Your task to perform on an android device: Go to Amazon Image 0: 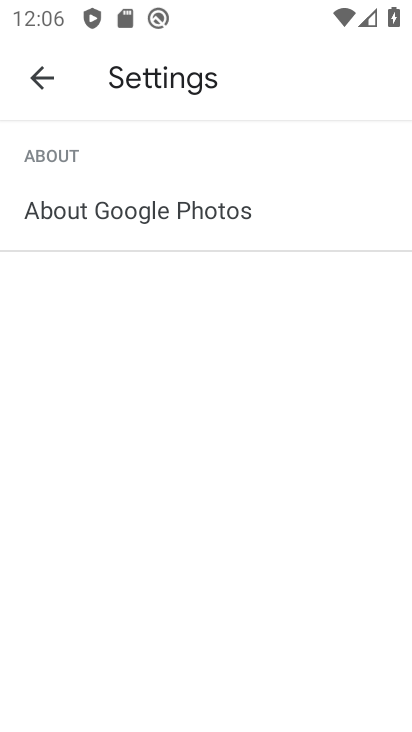
Step 0: press home button
Your task to perform on an android device: Go to Amazon Image 1: 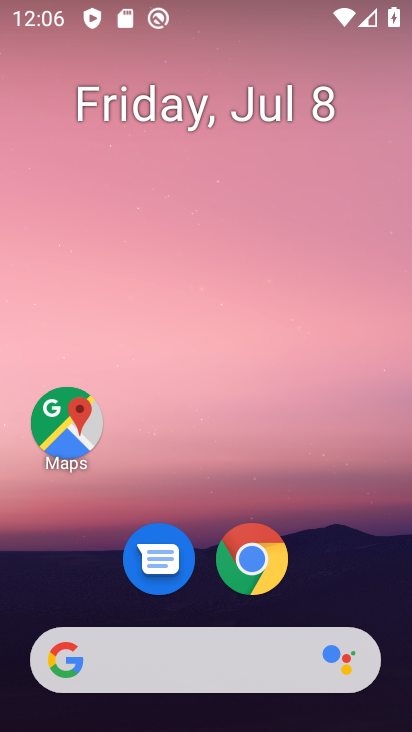
Step 1: click (243, 557)
Your task to perform on an android device: Go to Amazon Image 2: 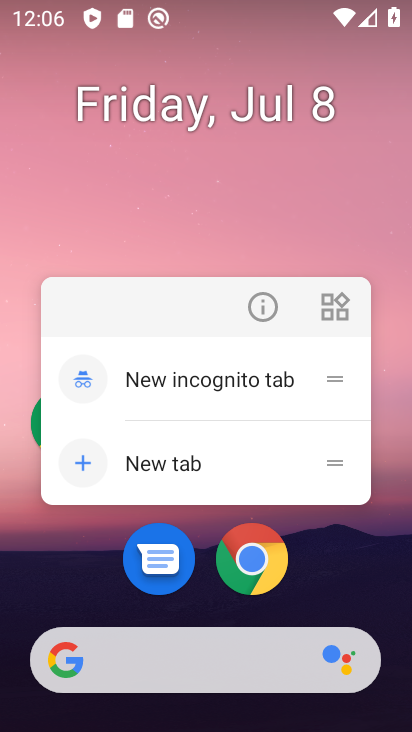
Step 2: click (238, 549)
Your task to perform on an android device: Go to Amazon Image 3: 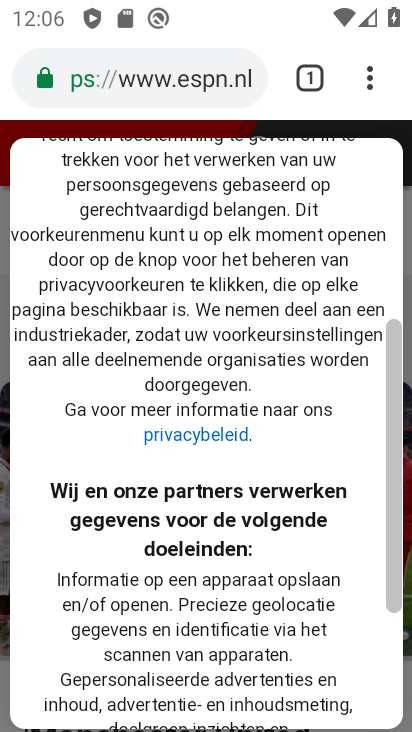
Step 3: click (316, 79)
Your task to perform on an android device: Go to Amazon Image 4: 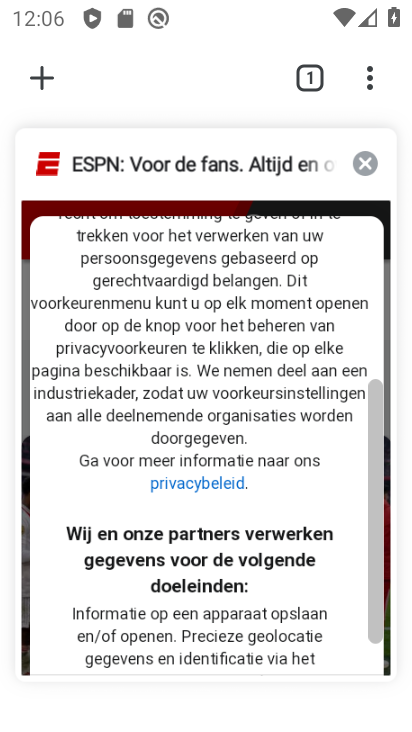
Step 4: click (33, 69)
Your task to perform on an android device: Go to Amazon Image 5: 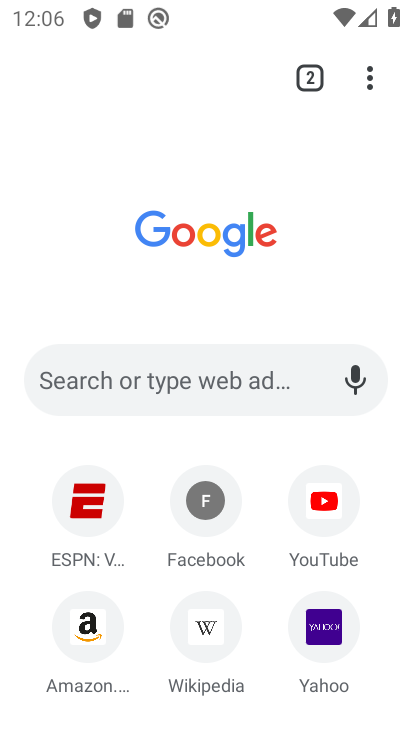
Step 5: click (83, 604)
Your task to perform on an android device: Go to Amazon Image 6: 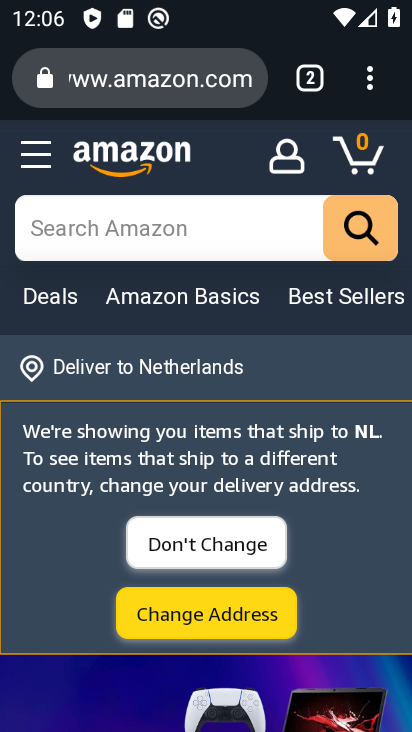
Step 6: task complete